Your task to perform on an android device: turn on the 24-hour format for clock Image 0: 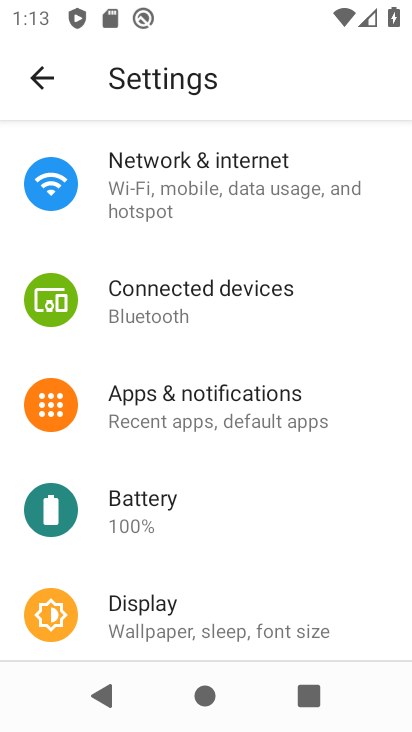
Step 0: press home button
Your task to perform on an android device: turn on the 24-hour format for clock Image 1: 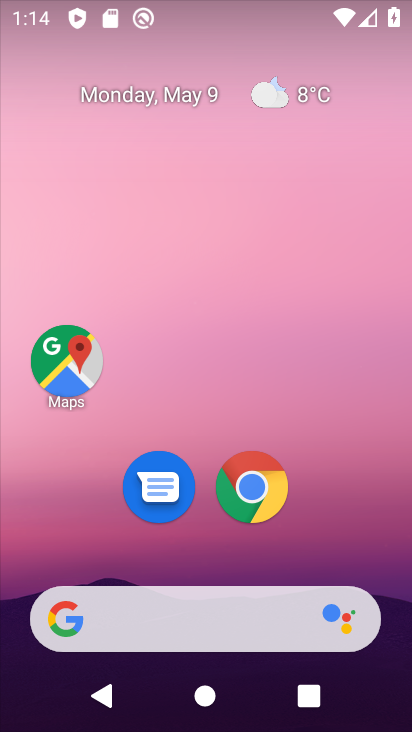
Step 1: drag from (331, 486) to (326, 30)
Your task to perform on an android device: turn on the 24-hour format for clock Image 2: 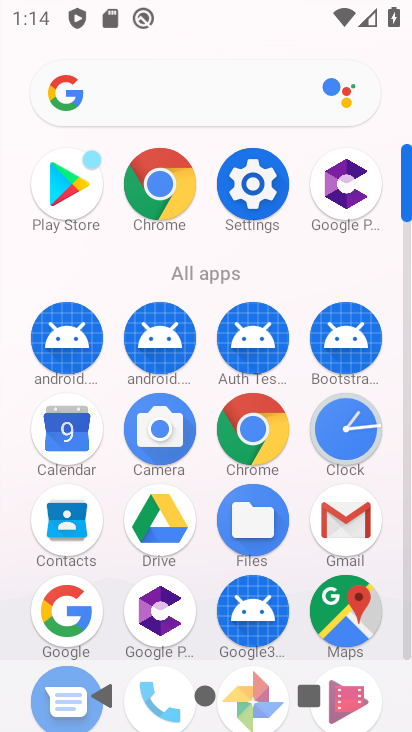
Step 2: click (334, 419)
Your task to perform on an android device: turn on the 24-hour format for clock Image 3: 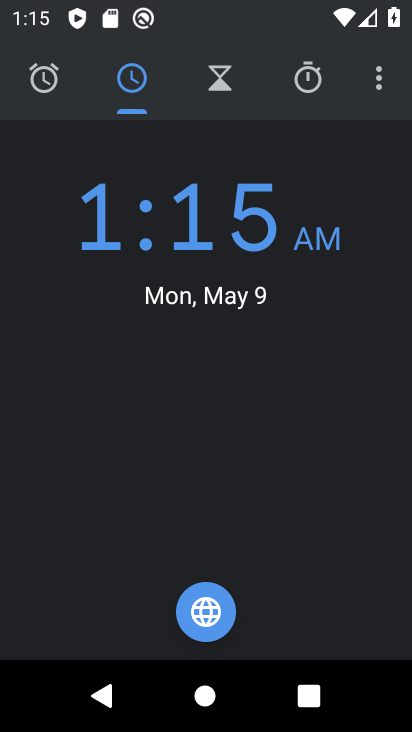
Step 3: click (385, 80)
Your task to perform on an android device: turn on the 24-hour format for clock Image 4: 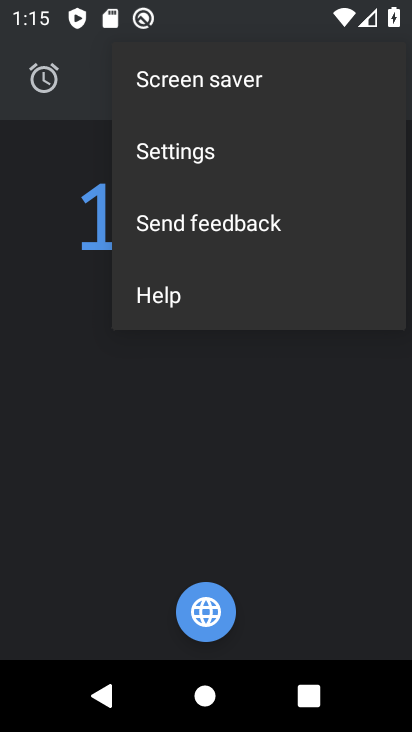
Step 4: click (216, 158)
Your task to perform on an android device: turn on the 24-hour format for clock Image 5: 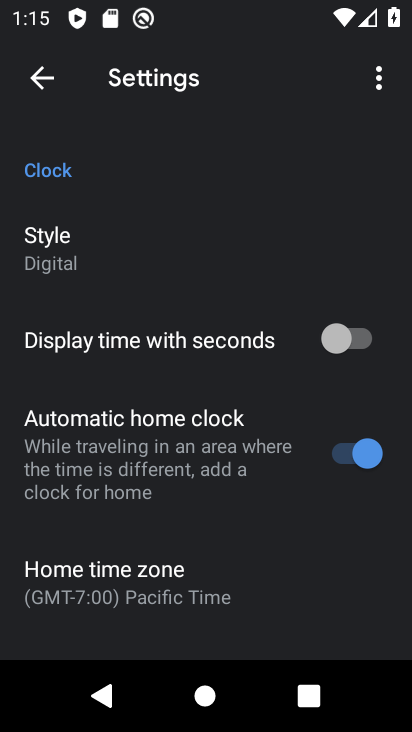
Step 5: drag from (199, 563) to (189, 271)
Your task to perform on an android device: turn on the 24-hour format for clock Image 6: 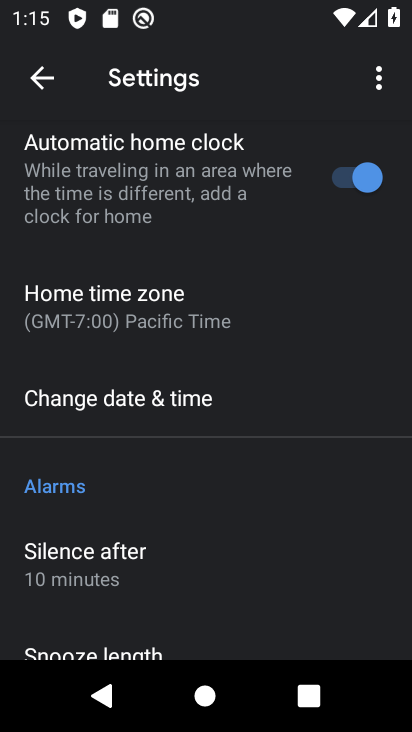
Step 6: click (174, 401)
Your task to perform on an android device: turn on the 24-hour format for clock Image 7: 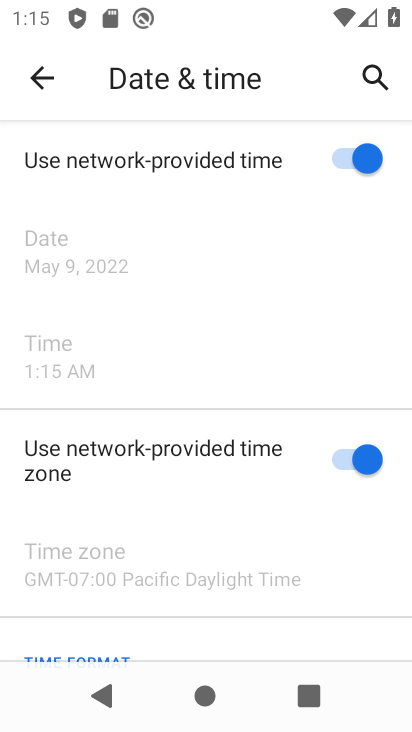
Step 7: drag from (182, 571) to (156, 296)
Your task to perform on an android device: turn on the 24-hour format for clock Image 8: 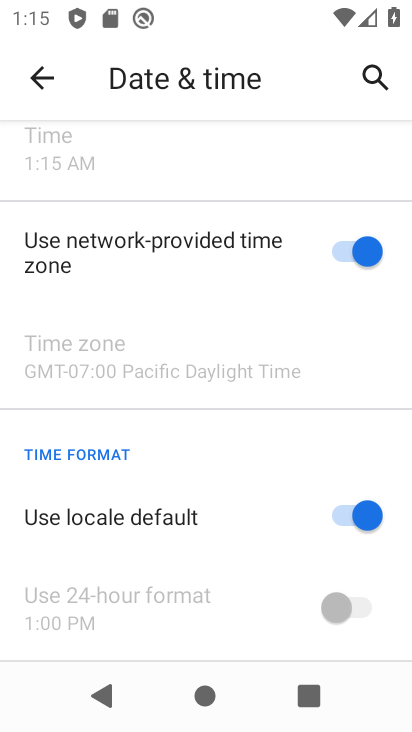
Step 8: click (358, 521)
Your task to perform on an android device: turn on the 24-hour format for clock Image 9: 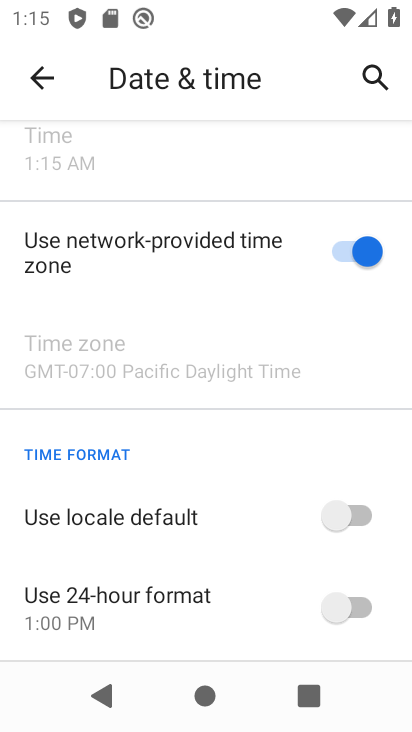
Step 9: click (336, 596)
Your task to perform on an android device: turn on the 24-hour format for clock Image 10: 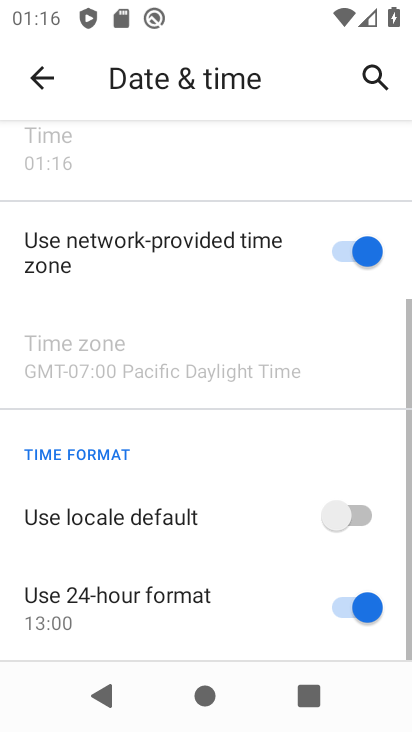
Step 10: task complete